Your task to perform on an android device: turn on the 12-hour format for clock Image 0: 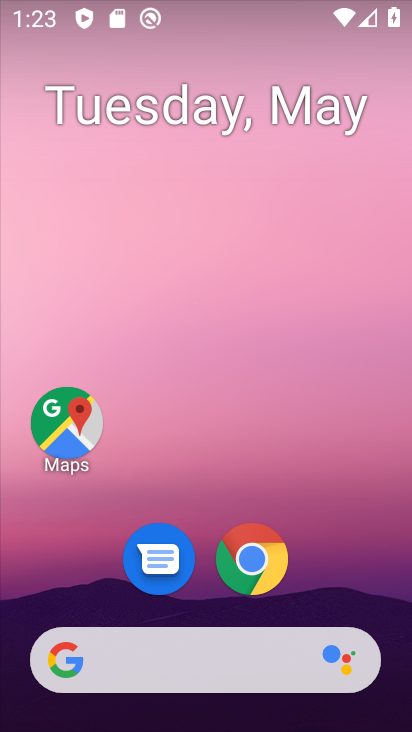
Step 0: drag from (388, 642) to (264, 97)
Your task to perform on an android device: turn on the 12-hour format for clock Image 1: 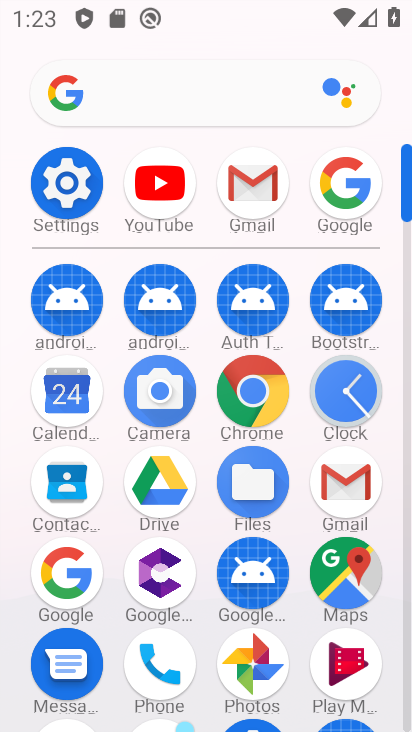
Step 1: click (354, 397)
Your task to perform on an android device: turn on the 12-hour format for clock Image 2: 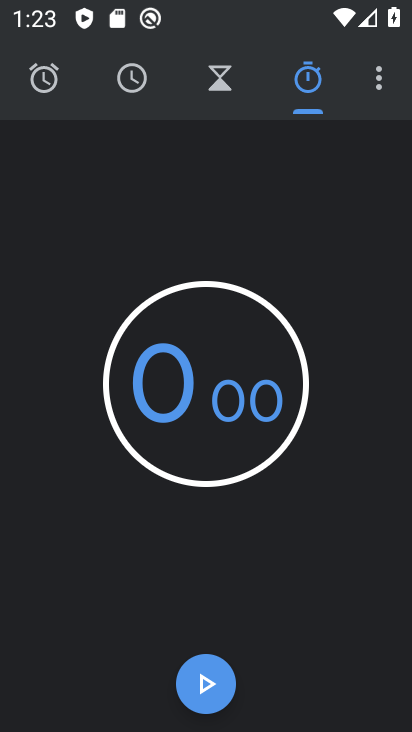
Step 2: click (377, 85)
Your task to perform on an android device: turn on the 12-hour format for clock Image 3: 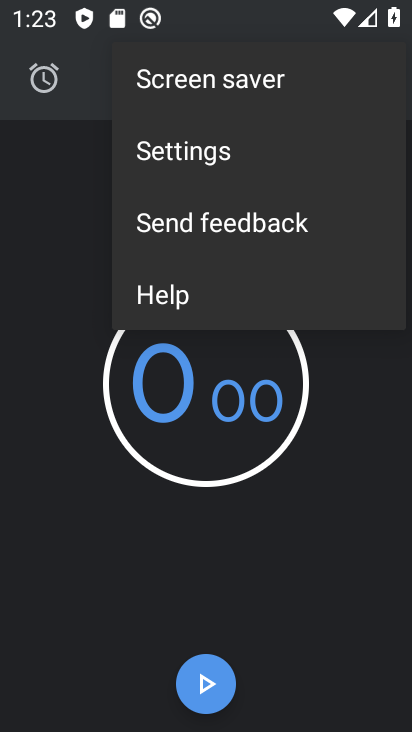
Step 3: click (243, 174)
Your task to perform on an android device: turn on the 12-hour format for clock Image 4: 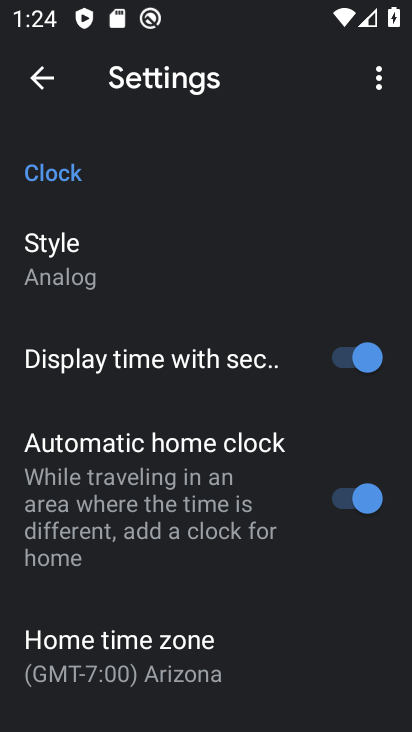
Step 4: drag from (194, 648) to (170, 219)
Your task to perform on an android device: turn on the 12-hour format for clock Image 5: 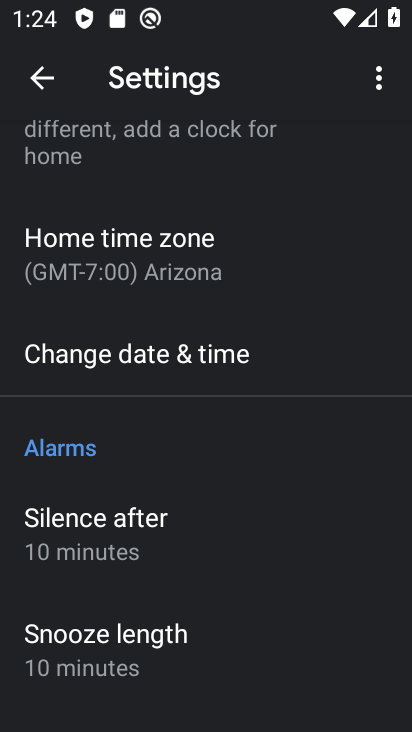
Step 5: click (197, 364)
Your task to perform on an android device: turn on the 12-hour format for clock Image 6: 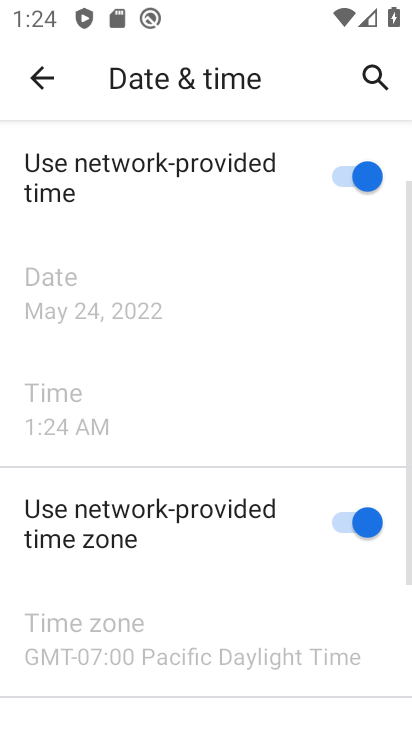
Step 6: task complete